Your task to perform on an android device: turn off airplane mode Image 0: 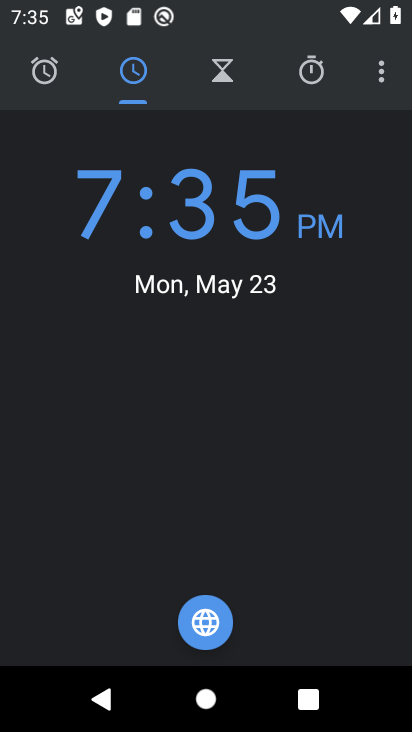
Step 0: press home button
Your task to perform on an android device: turn off airplane mode Image 1: 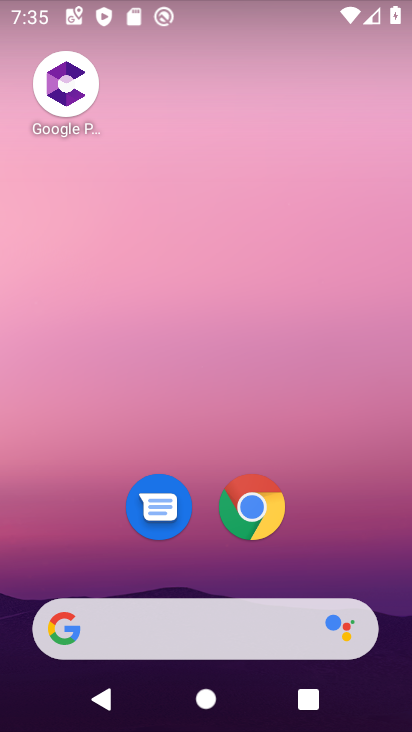
Step 1: drag from (361, 548) to (362, 177)
Your task to perform on an android device: turn off airplane mode Image 2: 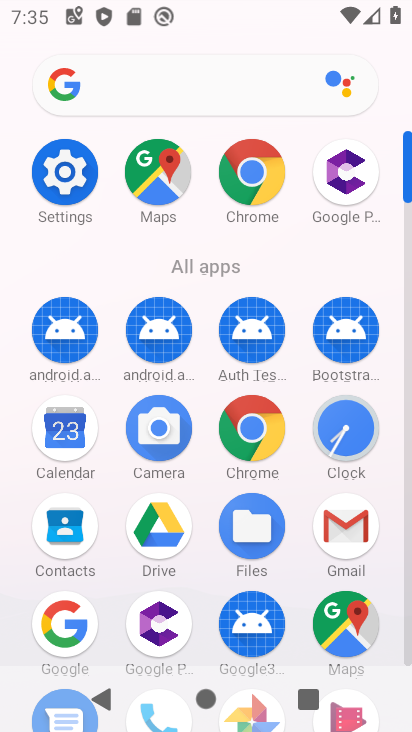
Step 2: click (50, 162)
Your task to perform on an android device: turn off airplane mode Image 3: 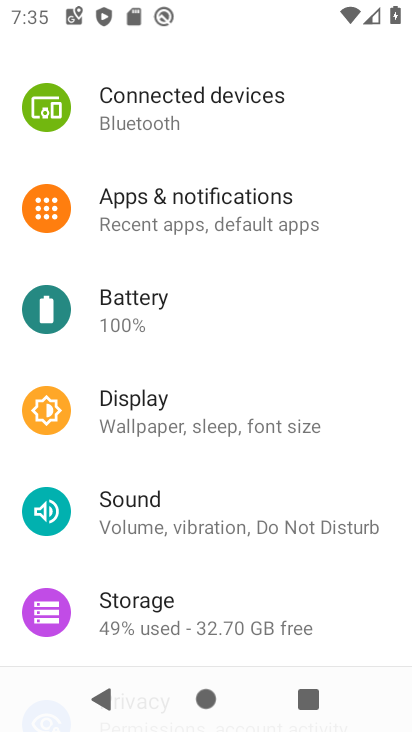
Step 3: drag from (249, 182) to (244, 621)
Your task to perform on an android device: turn off airplane mode Image 4: 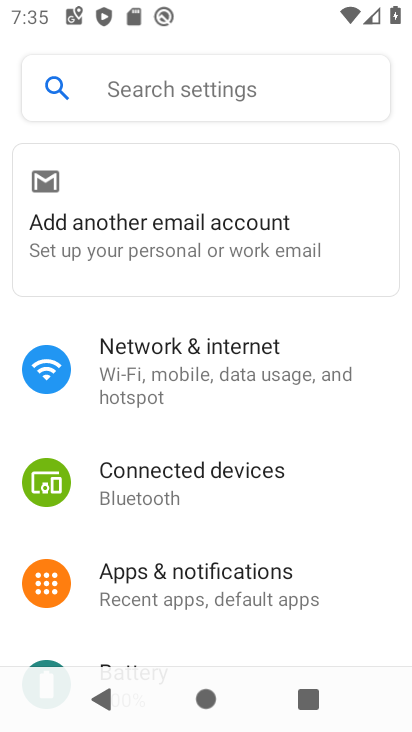
Step 4: click (251, 367)
Your task to perform on an android device: turn off airplane mode Image 5: 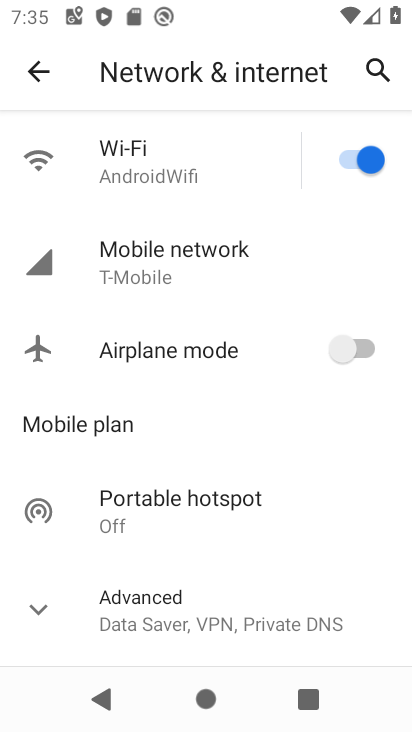
Step 5: task complete